Your task to perform on an android device: show emergency info Image 0: 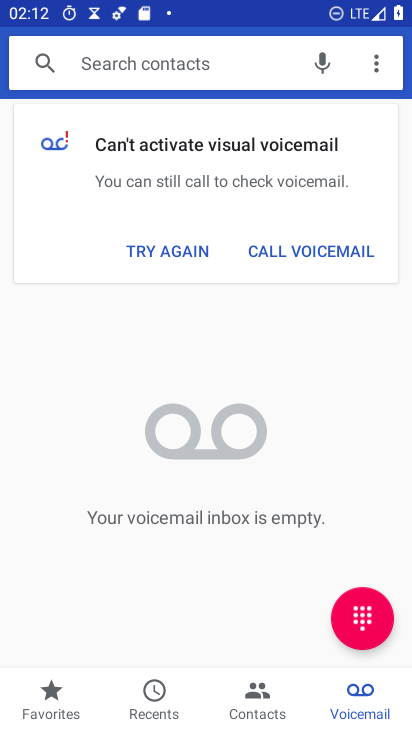
Step 0: press home button
Your task to perform on an android device: show emergency info Image 1: 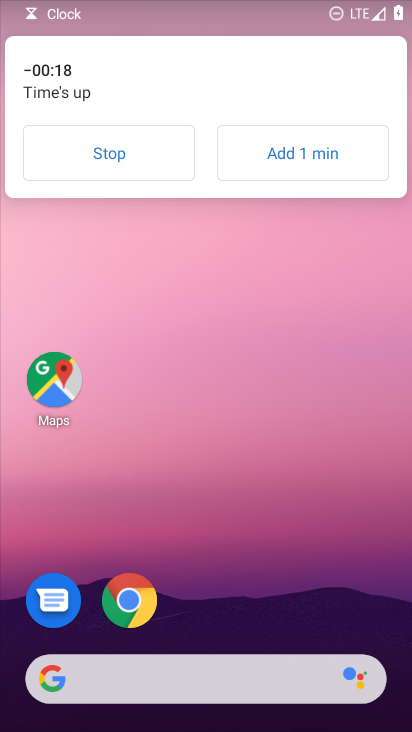
Step 1: click (117, 152)
Your task to perform on an android device: show emergency info Image 2: 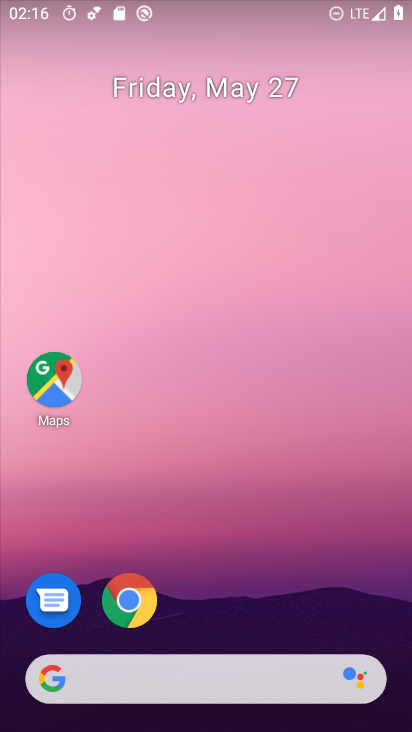
Step 2: drag from (129, 531) to (14, 188)
Your task to perform on an android device: show emergency info Image 3: 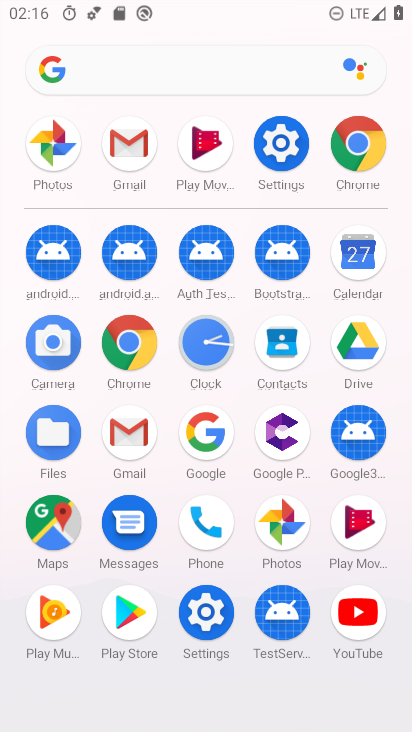
Step 3: click (285, 139)
Your task to perform on an android device: show emergency info Image 4: 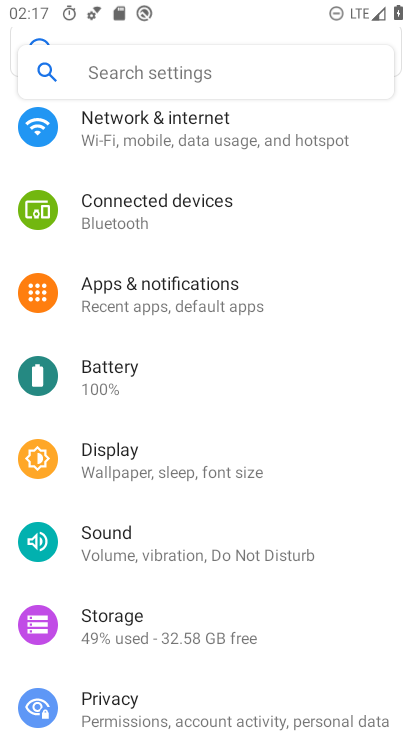
Step 4: drag from (237, 509) to (172, 209)
Your task to perform on an android device: show emergency info Image 5: 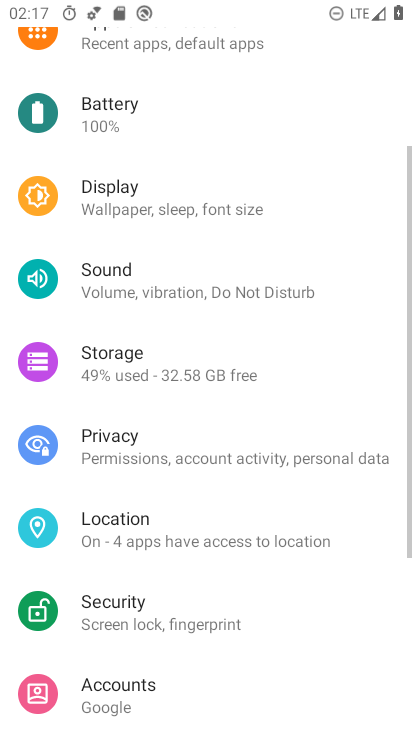
Step 5: drag from (154, 433) to (148, 239)
Your task to perform on an android device: show emergency info Image 6: 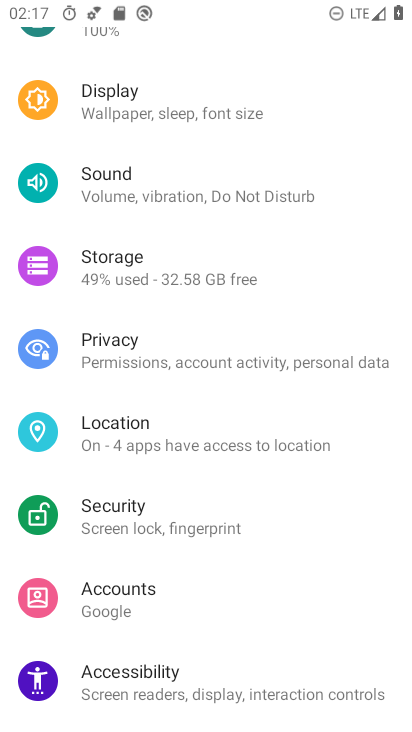
Step 6: drag from (142, 582) to (113, 247)
Your task to perform on an android device: show emergency info Image 7: 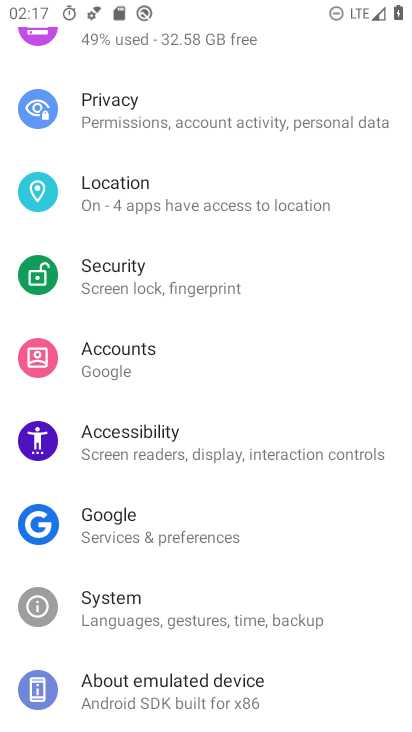
Step 7: drag from (171, 610) to (103, 179)
Your task to perform on an android device: show emergency info Image 8: 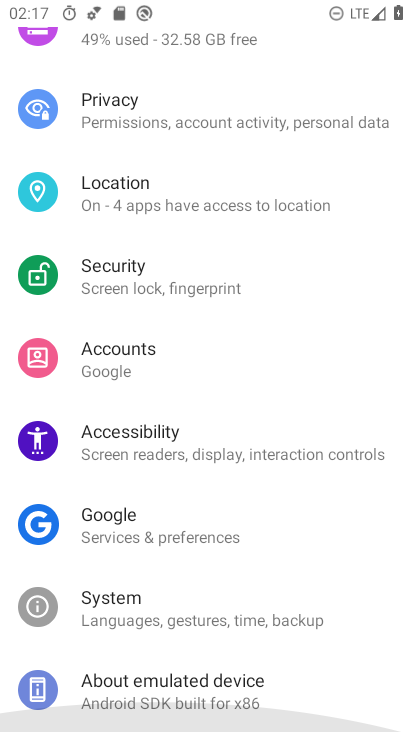
Step 8: click (160, 692)
Your task to perform on an android device: show emergency info Image 9: 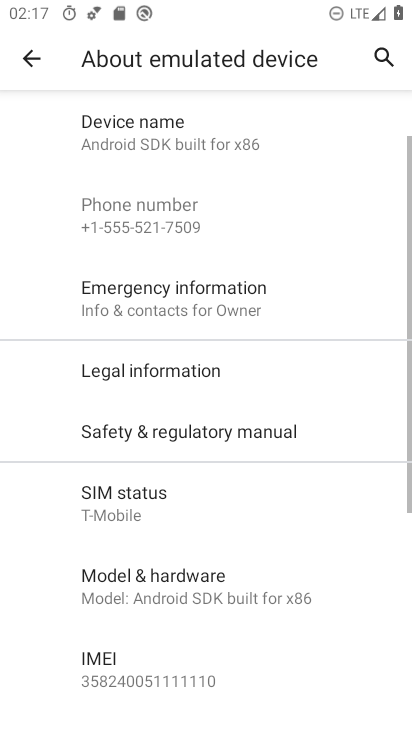
Step 9: click (108, 299)
Your task to perform on an android device: show emergency info Image 10: 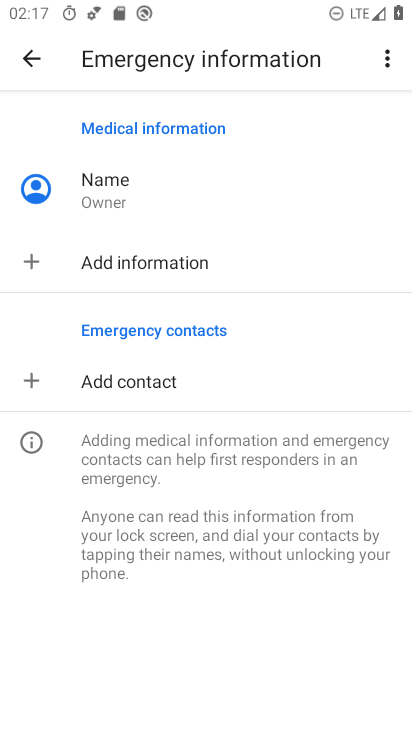
Step 10: task complete